Your task to perform on an android device: open app "Duolingo: language lessons" (install if not already installed) and go to login screen Image 0: 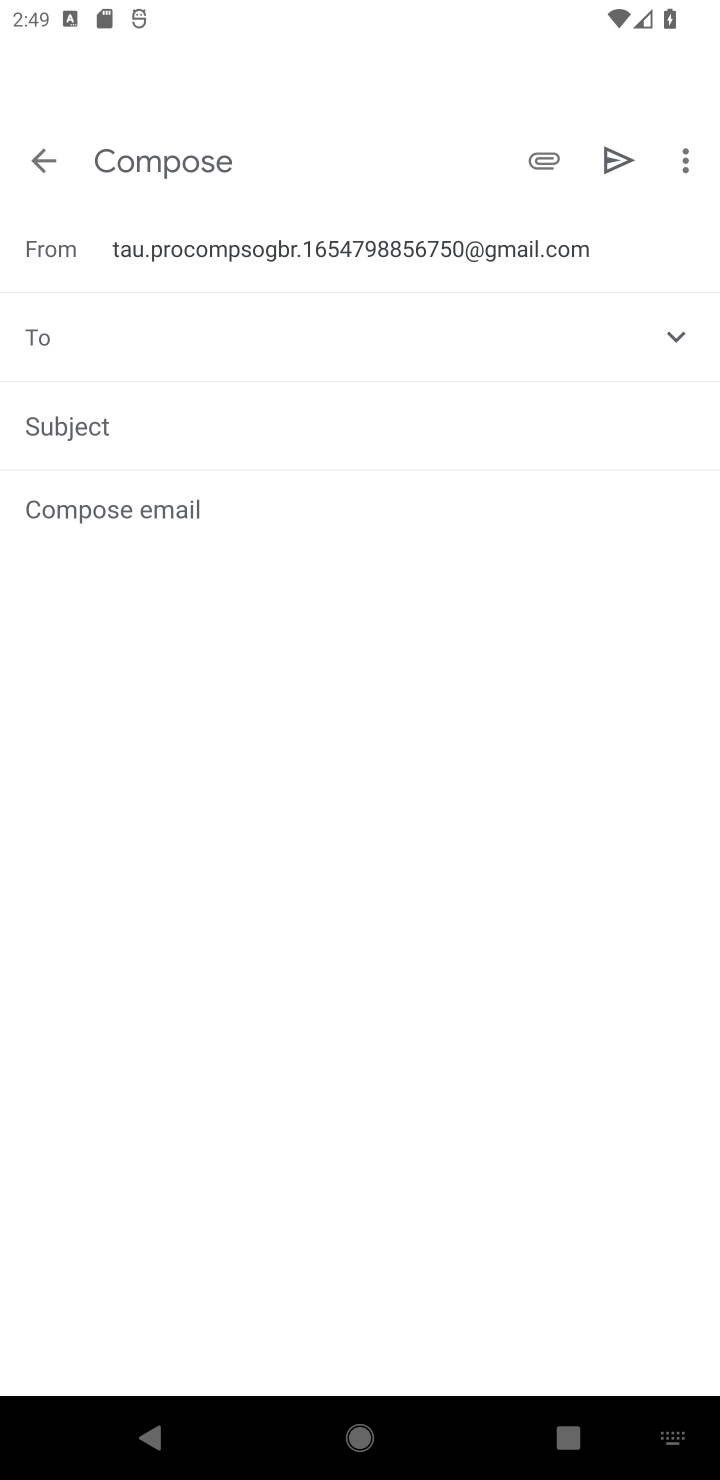
Step 0: press home button
Your task to perform on an android device: open app "Duolingo: language lessons" (install if not already installed) and go to login screen Image 1: 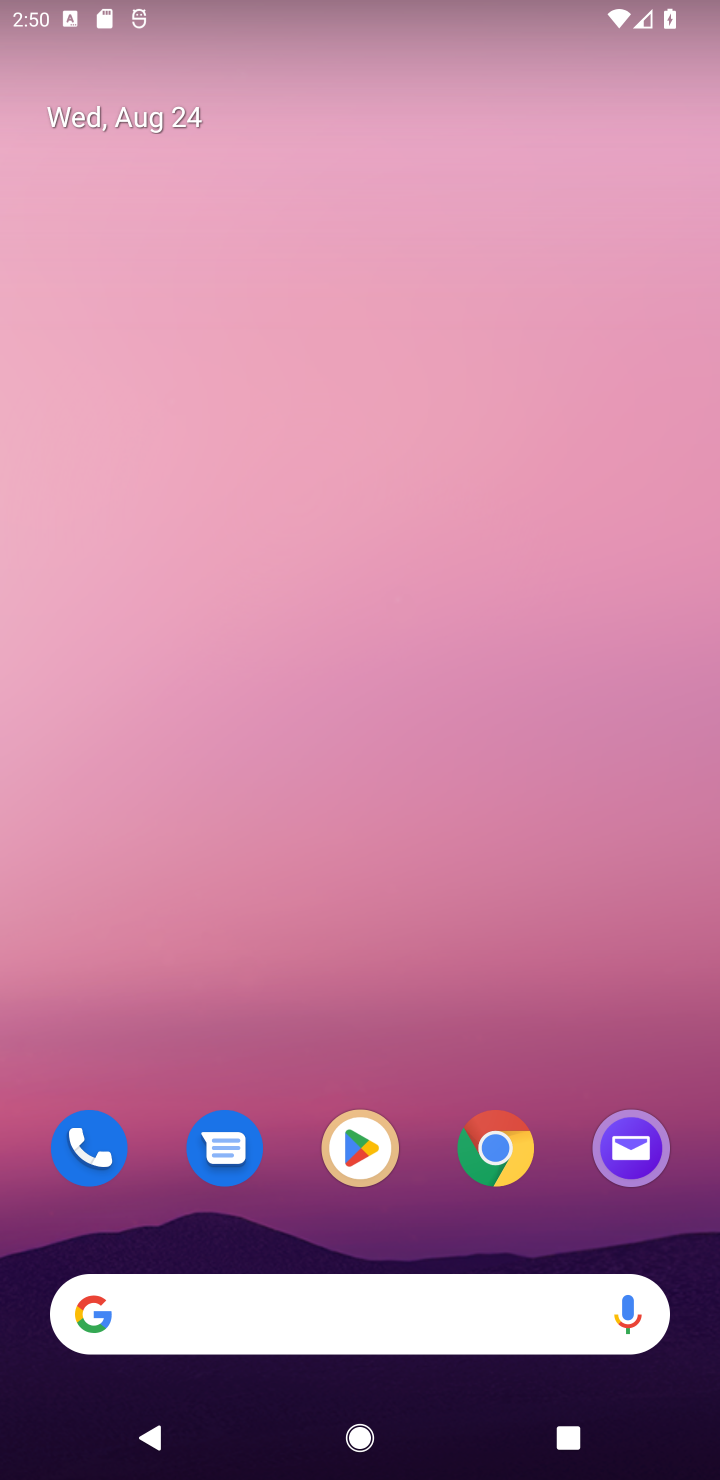
Step 1: click (369, 1151)
Your task to perform on an android device: open app "Duolingo: language lessons" (install if not already installed) and go to login screen Image 2: 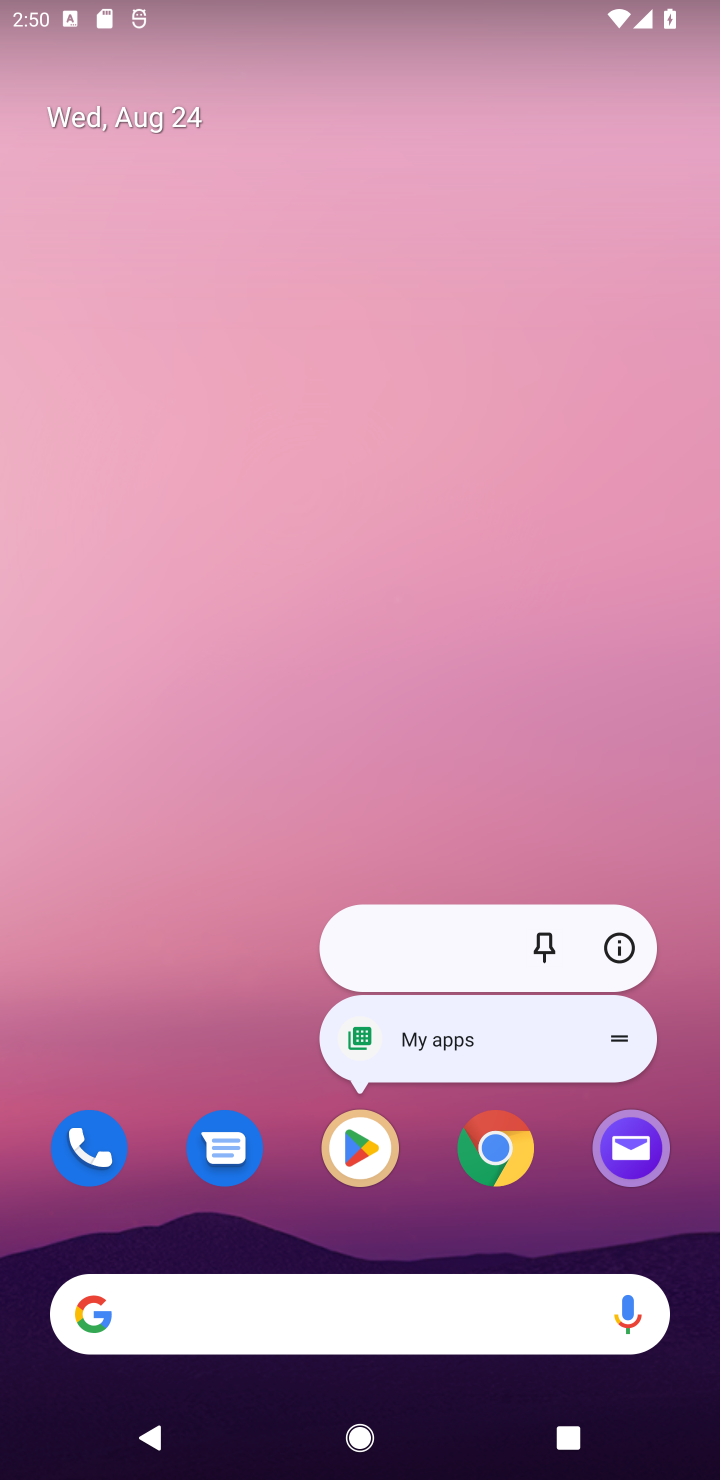
Step 2: click (354, 1150)
Your task to perform on an android device: open app "Duolingo: language lessons" (install if not already installed) and go to login screen Image 3: 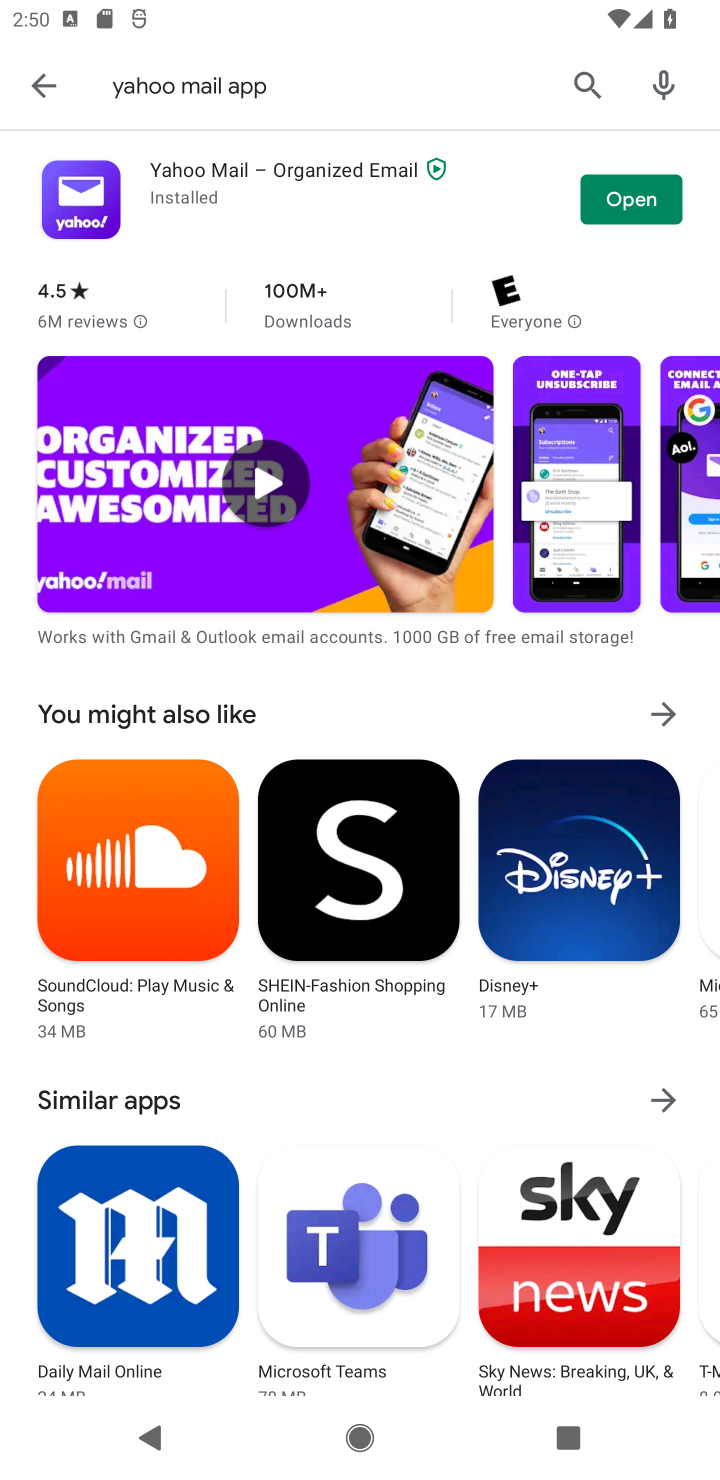
Step 3: click (51, 86)
Your task to perform on an android device: open app "Duolingo: language lessons" (install if not already installed) and go to login screen Image 4: 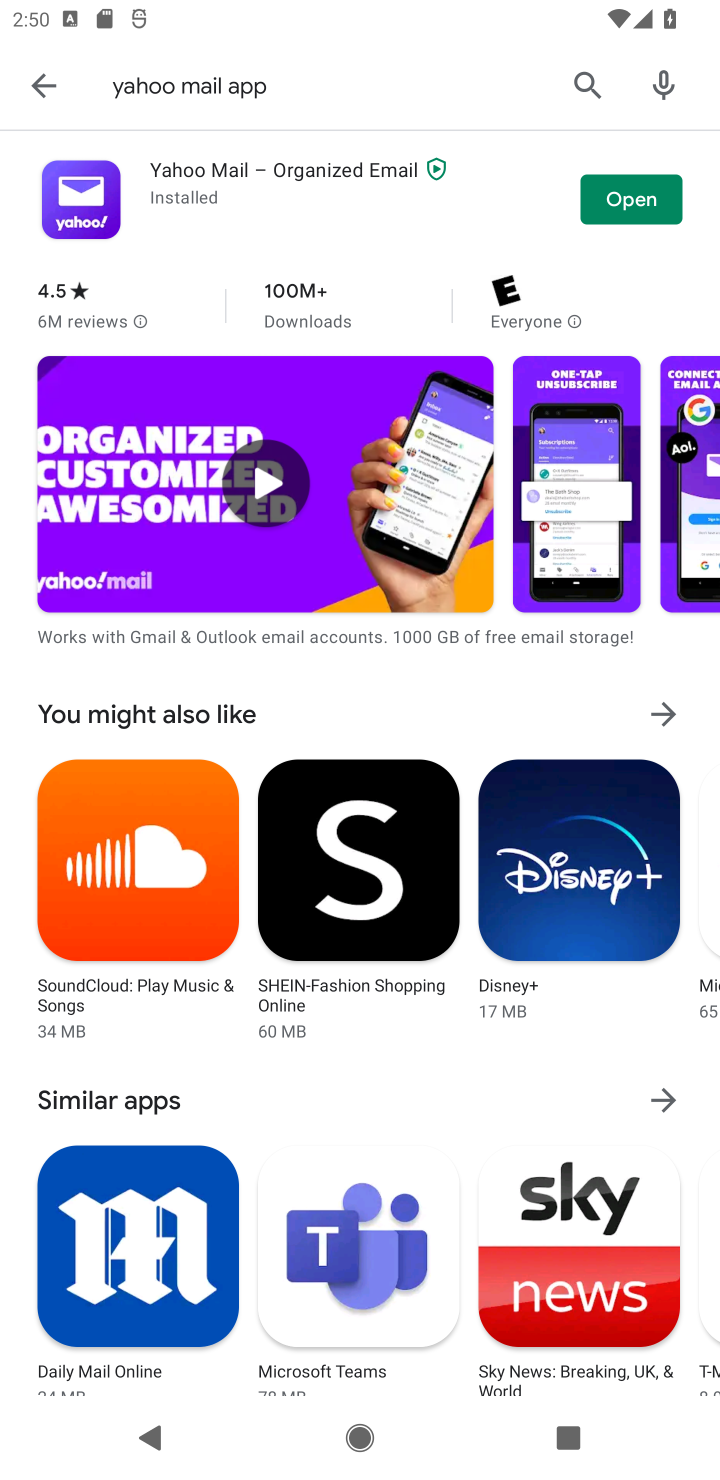
Step 4: click (598, 67)
Your task to perform on an android device: open app "Duolingo: language lessons" (install if not already installed) and go to login screen Image 5: 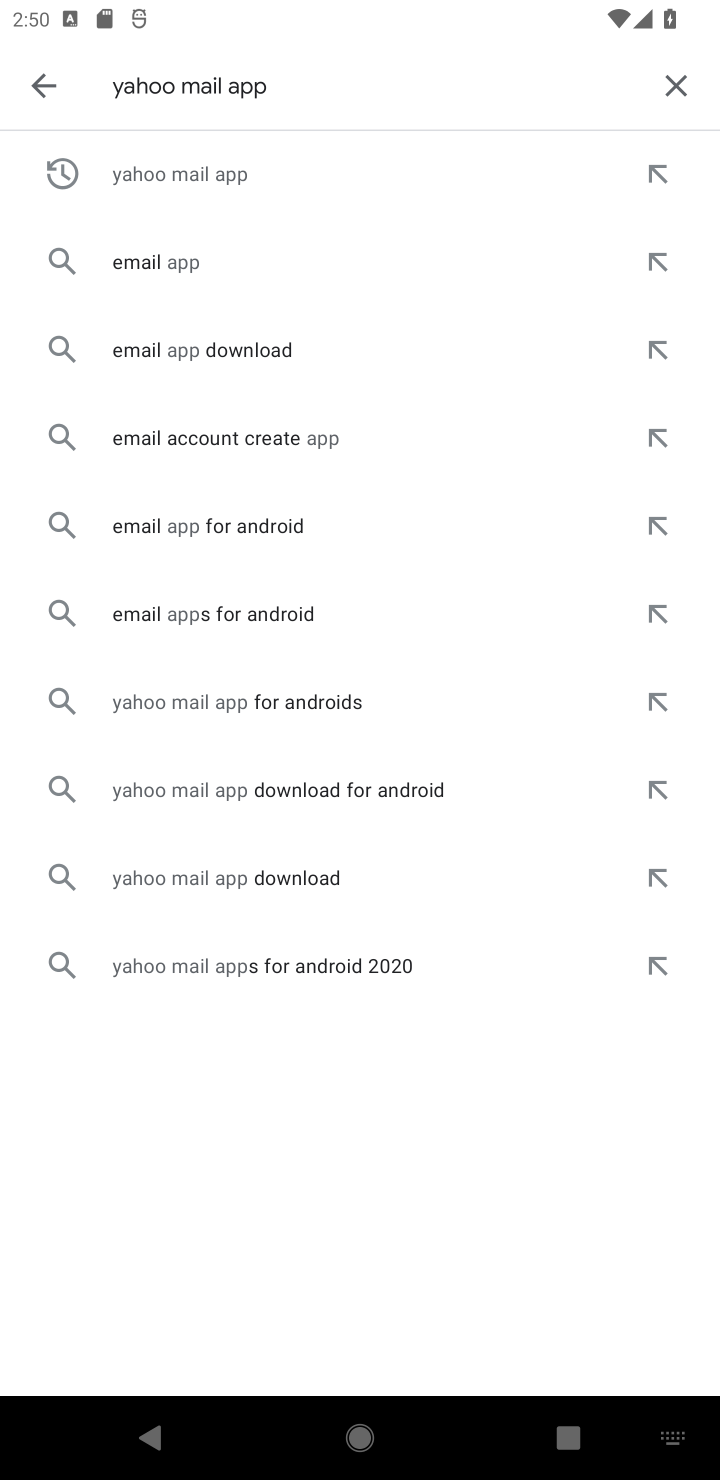
Step 5: click (678, 72)
Your task to perform on an android device: open app "Duolingo: language lessons" (install if not already installed) and go to login screen Image 6: 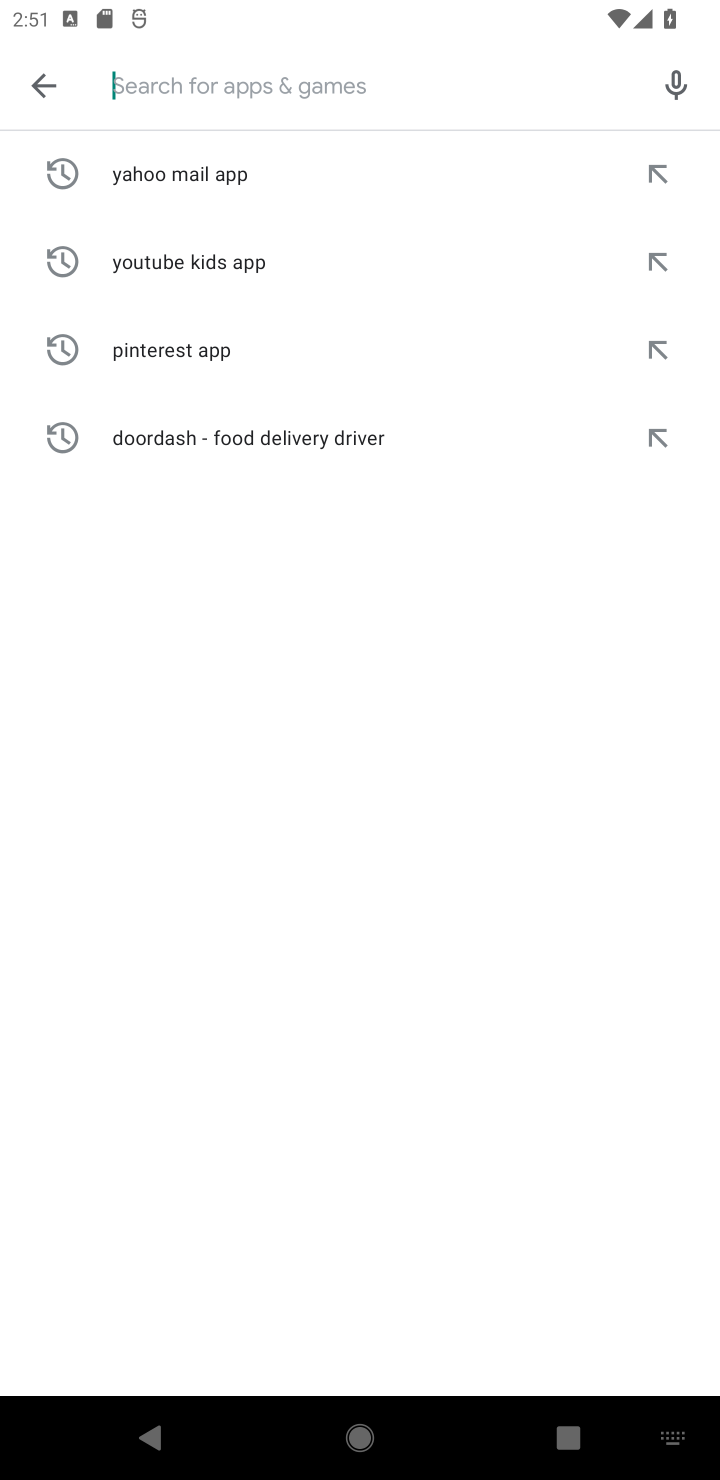
Step 6: click (338, 80)
Your task to perform on an android device: open app "Duolingo: language lessons" (install if not already installed) and go to login screen Image 7: 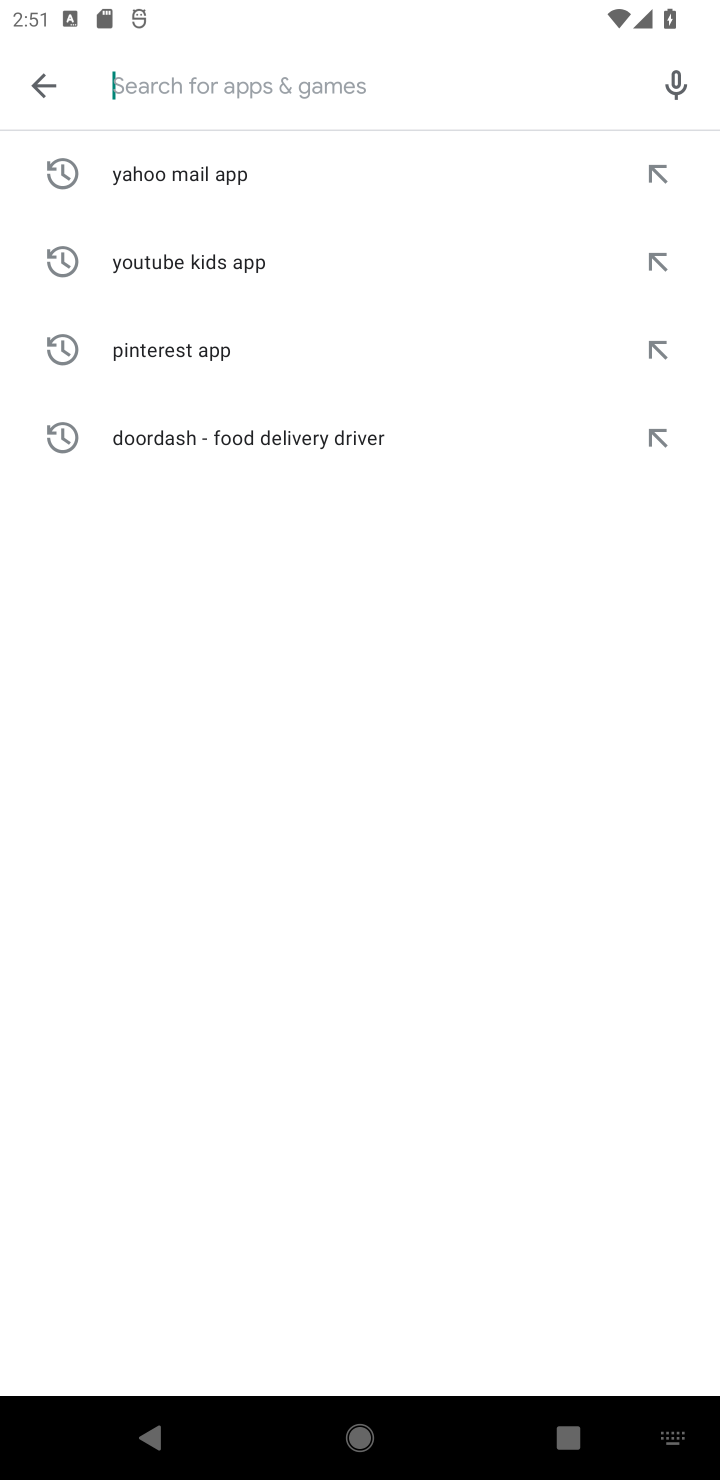
Step 7: type "Duolingo: language lessons "
Your task to perform on an android device: open app "Duolingo: language lessons" (install if not already installed) and go to login screen Image 8: 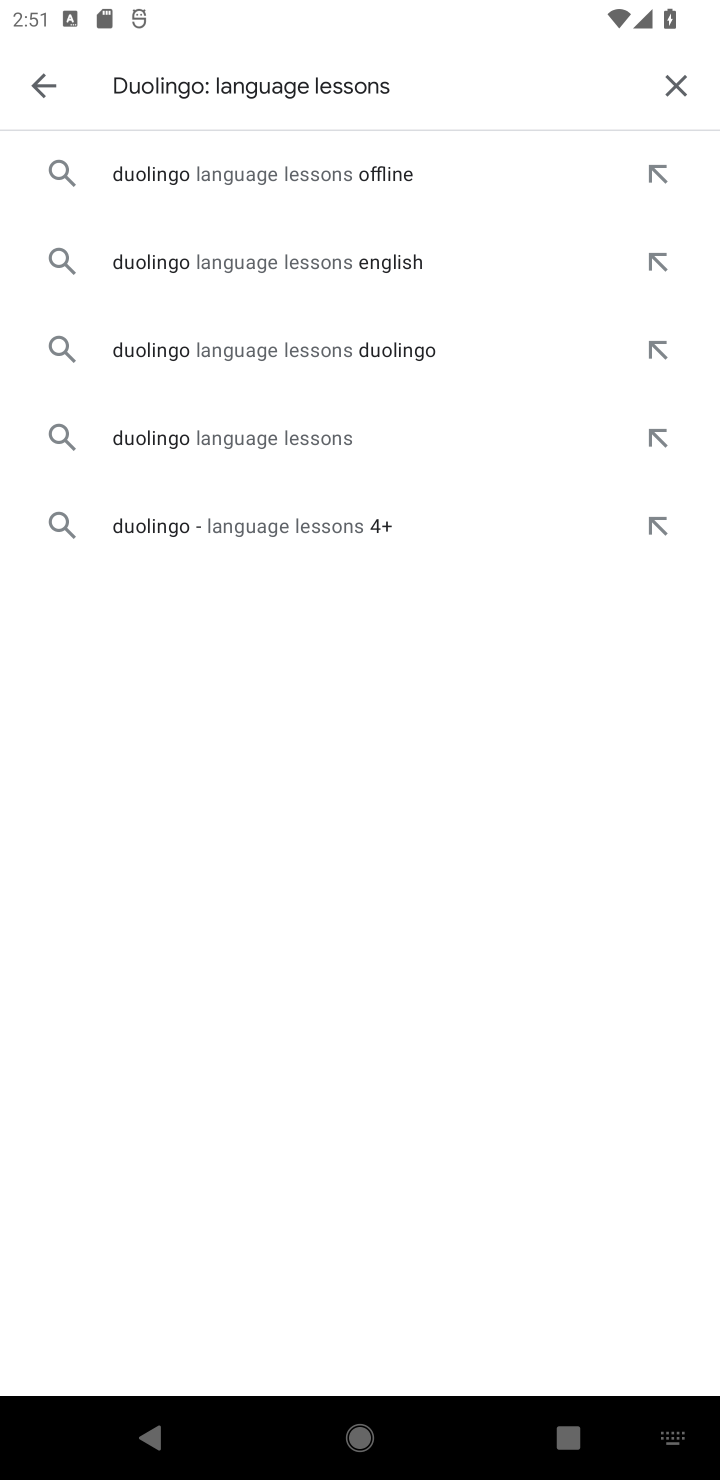
Step 8: click (322, 170)
Your task to perform on an android device: open app "Duolingo: language lessons" (install if not already installed) and go to login screen Image 9: 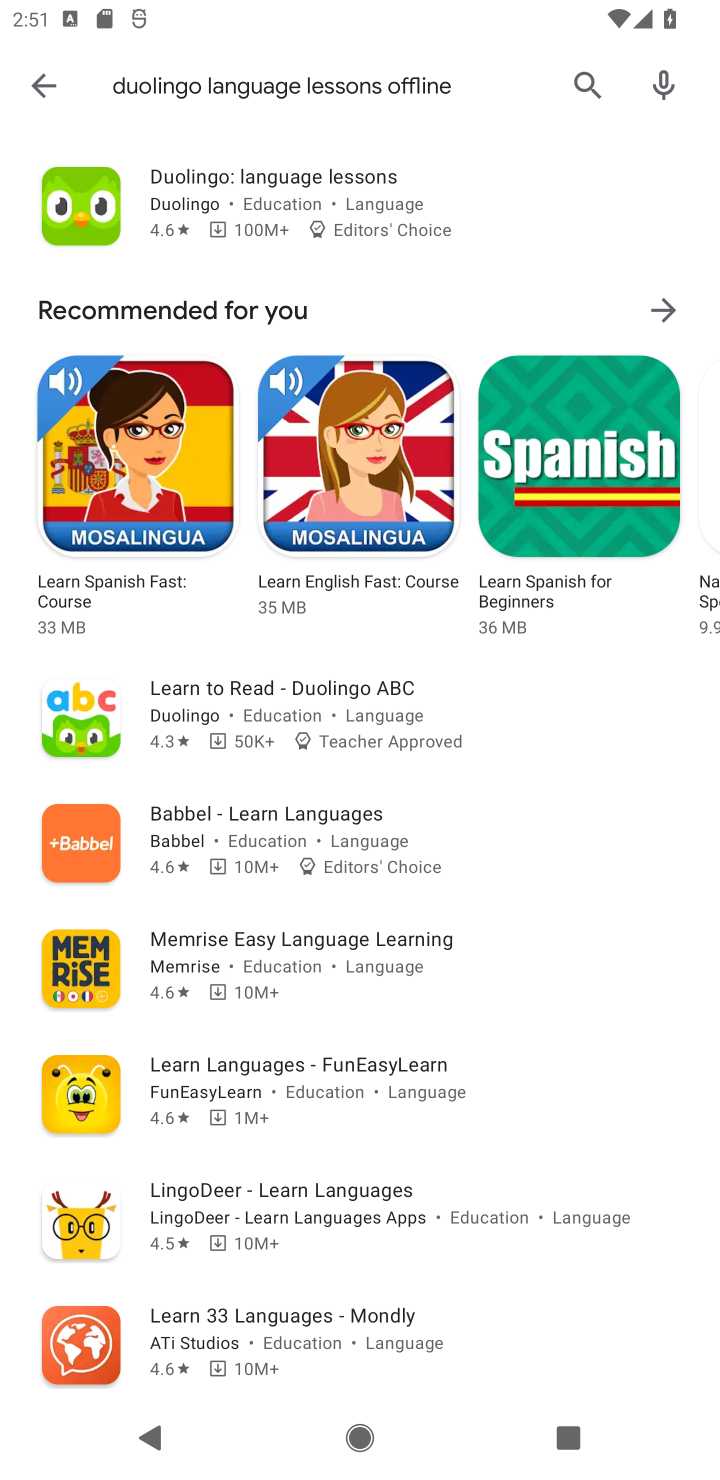
Step 9: click (283, 197)
Your task to perform on an android device: open app "Duolingo: language lessons" (install if not already installed) and go to login screen Image 10: 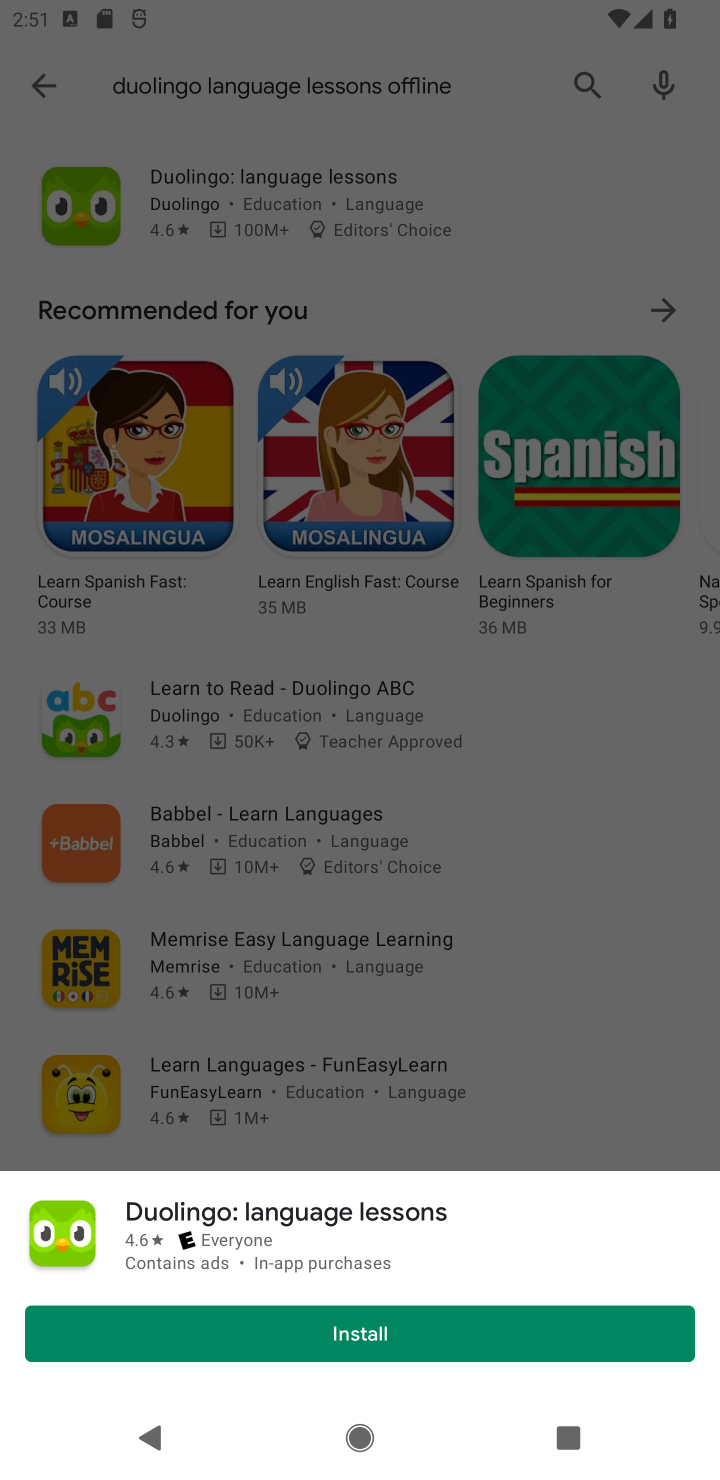
Step 10: click (445, 1328)
Your task to perform on an android device: open app "Duolingo: language lessons" (install if not already installed) and go to login screen Image 11: 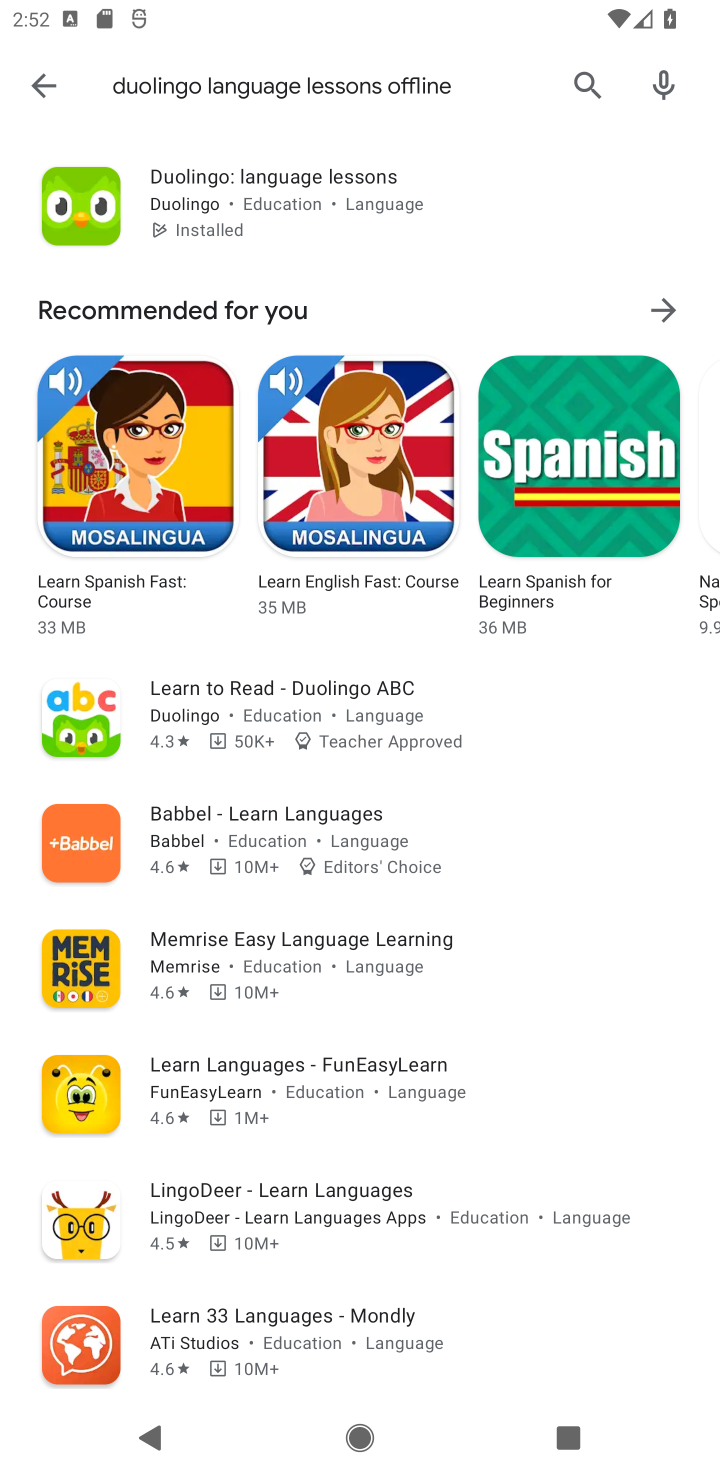
Step 11: task complete